Your task to perform on an android device: open chrome and create a bookmark for the current page Image 0: 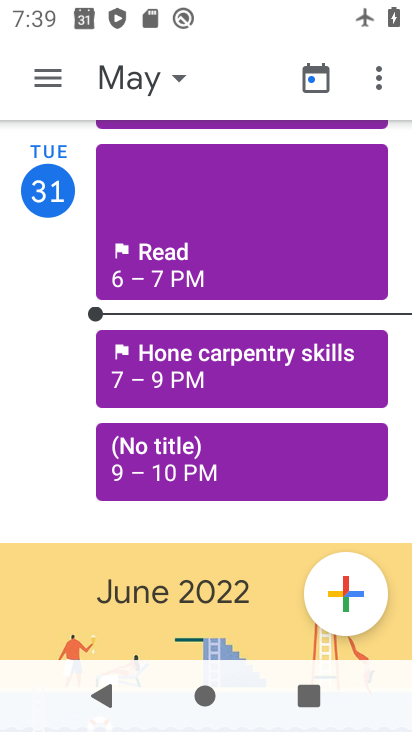
Step 0: press home button
Your task to perform on an android device: open chrome and create a bookmark for the current page Image 1: 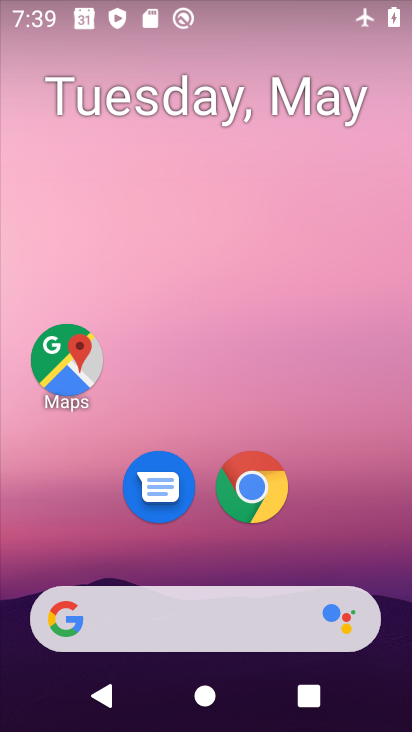
Step 1: drag from (350, 537) to (403, 179)
Your task to perform on an android device: open chrome and create a bookmark for the current page Image 2: 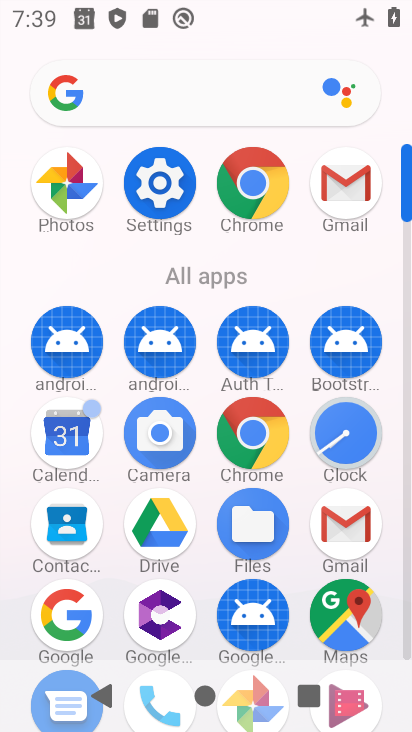
Step 2: click (261, 430)
Your task to perform on an android device: open chrome and create a bookmark for the current page Image 3: 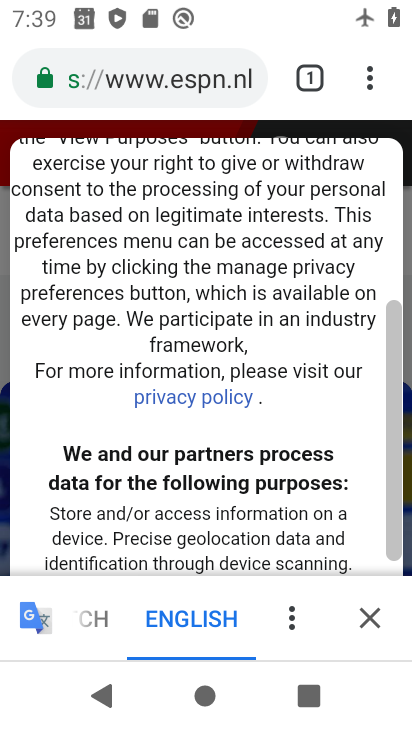
Step 3: click (372, 85)
Your task to perform on an android device: open chrome and create a bookmark for the current page Image 4: 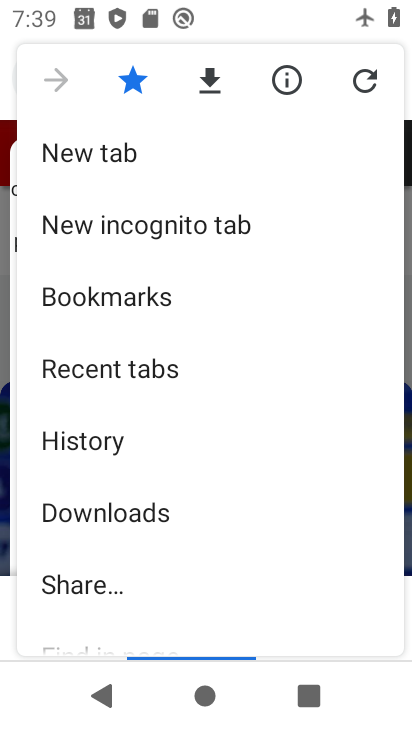
Step 4: task complete